Your task to perform on an android device: Open location settings Image 0: 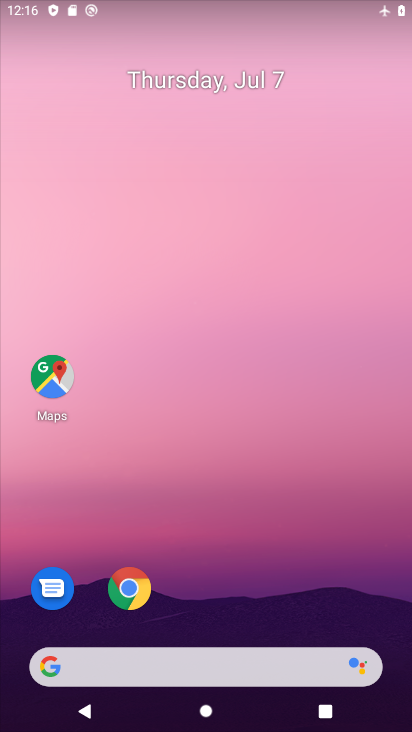
Step 0: drag from (211, 603) to (207, 81)
Your task to perform on an android device: Open location settings Image 1: 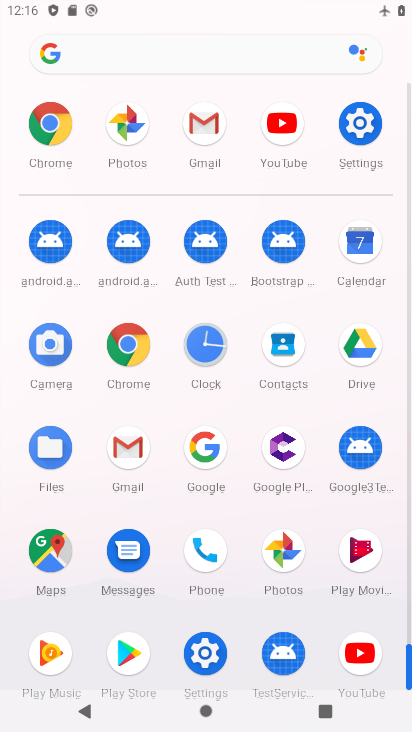
Step 1: click (371, 129)
Your task to perform on an android device: Open location settings Image 2: 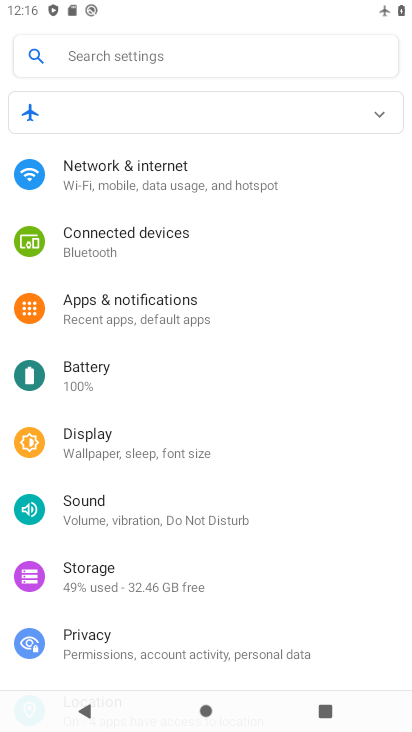
Step 2: drag from (138, 599) to (217, 181)
Your task to perform on an android device: Open location settings Image 3: 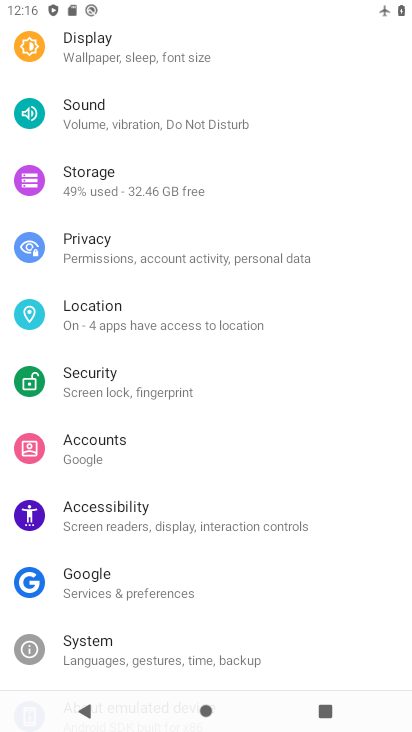
Step 3: click (127, 320)
Your task to perform on an android device: Open location settings Image 4: 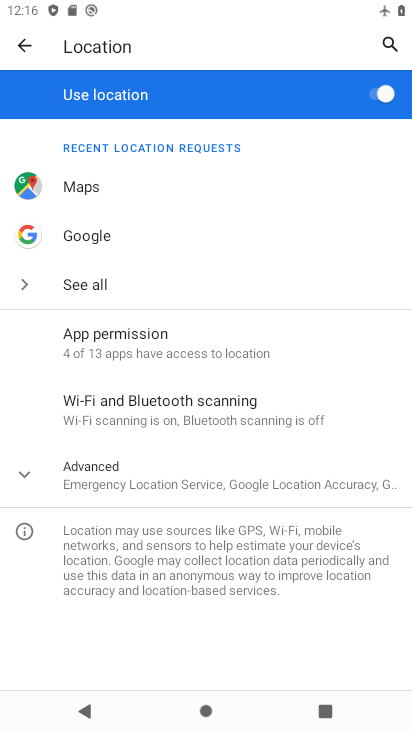
Step 4: click (164, 486)
Your task to perform on an android device: Open location settings Image 5: 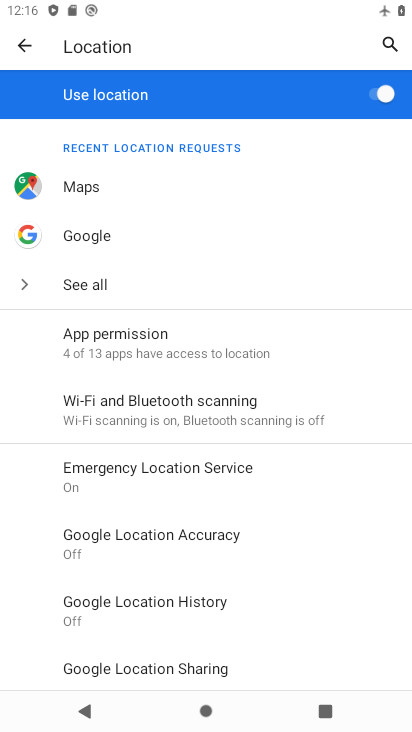
Step 5: task complete